Your task to perform on an android device: open a new tab in the chrome app Image 0: 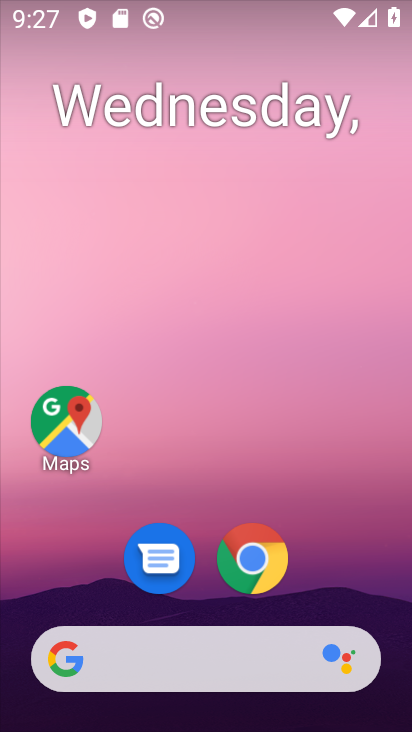
Step 0: click (240, 553)
Your task to perform on an android device: open a new tab in the chrome app Image 1: 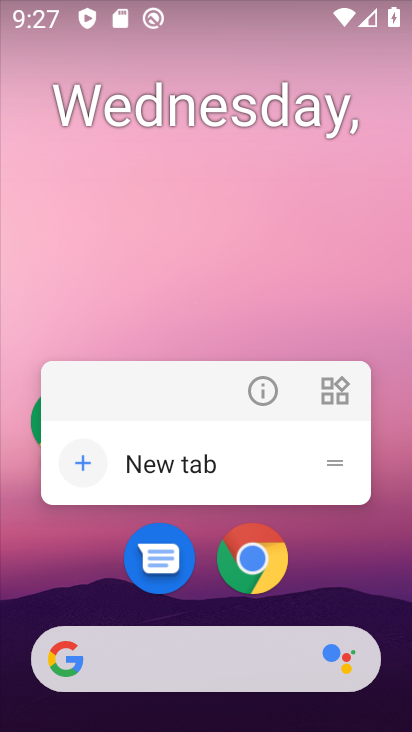
Step 1: click (253, 551)
Your task to perform on an android device: open a new tab in the chrome app Image 2: 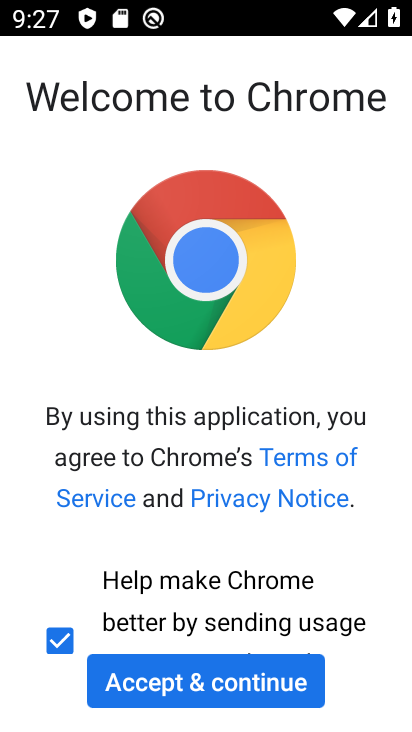
Step 2: click (204, 689)
Your task to perform on an android device: open a new tab in the chrome app Image 3: 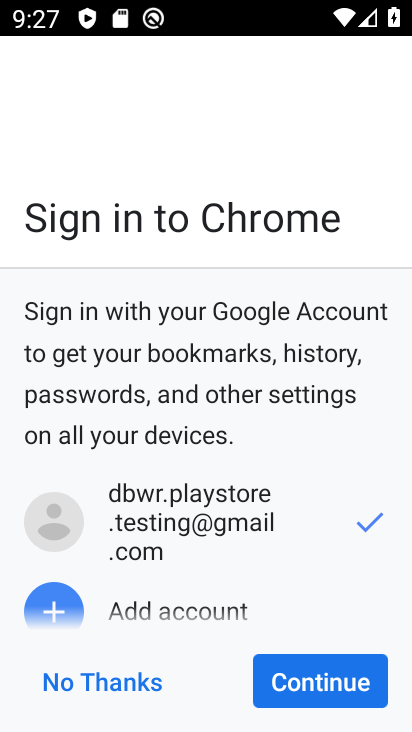
Step 3: click (70, 685)
Your task to perform on an android device: open a new tab in the chrome app Image 4: 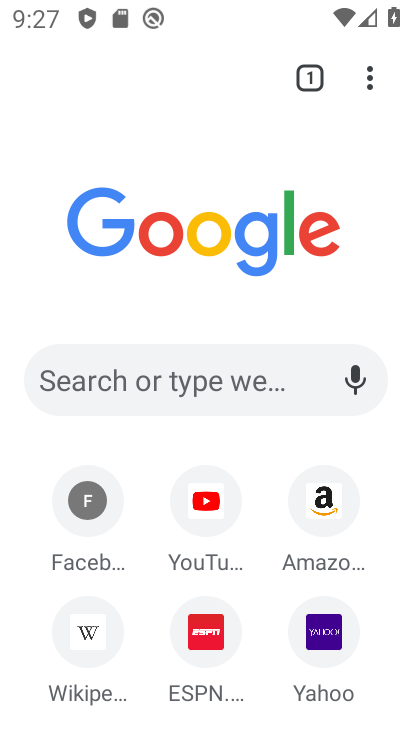
Step 4: click (300, 85)
Your task to perform on an android device: open a new tab in the chrome app Image 5: 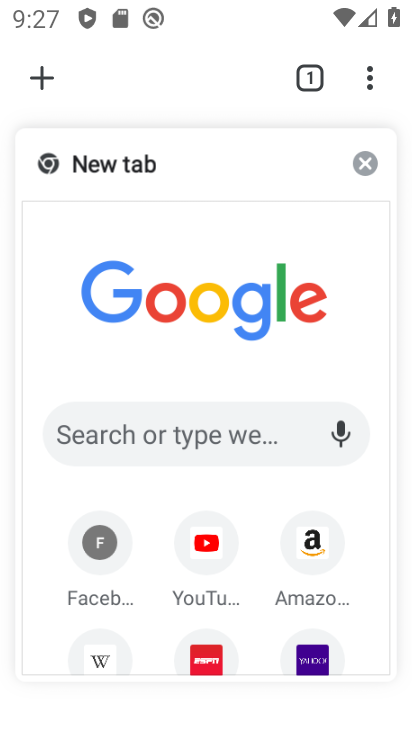
Step 5: click (47, 79)
Your task to perform on an android device: open a new tab in the chrome app Image 6: 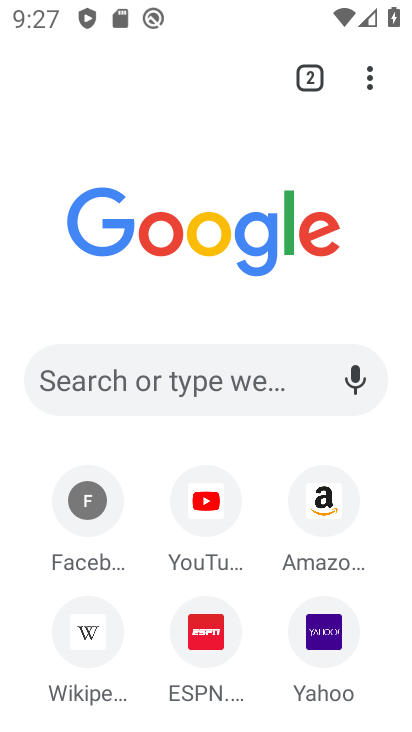
Step 6: task complete